Your task to perform on an android device: choose inbox layout in the gmail app Image 0: 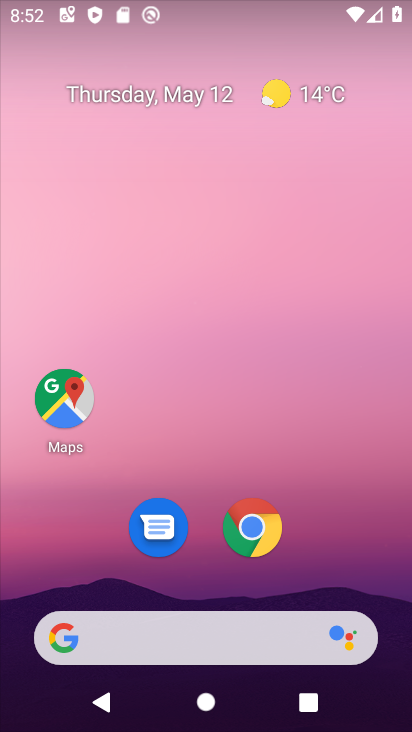
Step 0: drag from (363, 536) to (298, 98)
Your task to perform on an android device: choose inbox layout in the gmail app Image 1: 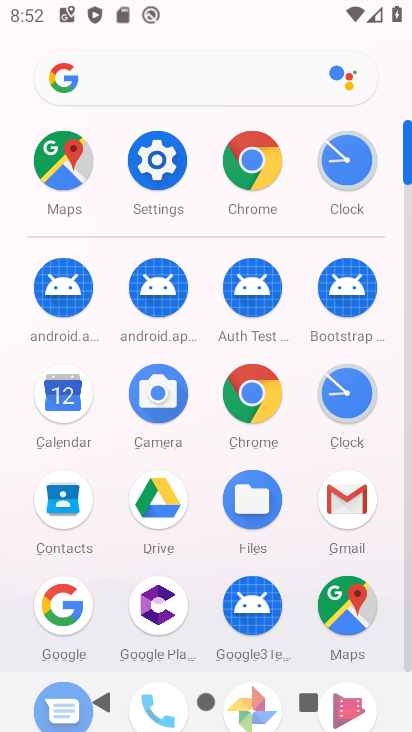
Step 1: click (332, 498)
Your task to perform on an android device: choose inbox layout in the gmail app Image 2: 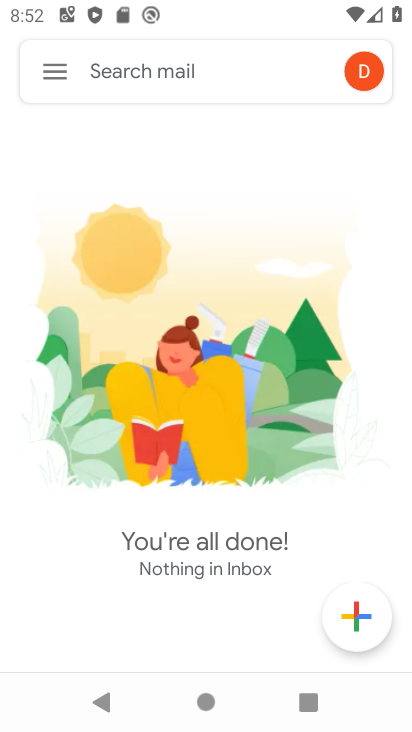
Step 2: click (46, 55)
Your task to perform on an android device: choose inbox layout in the gmail app Image 3: 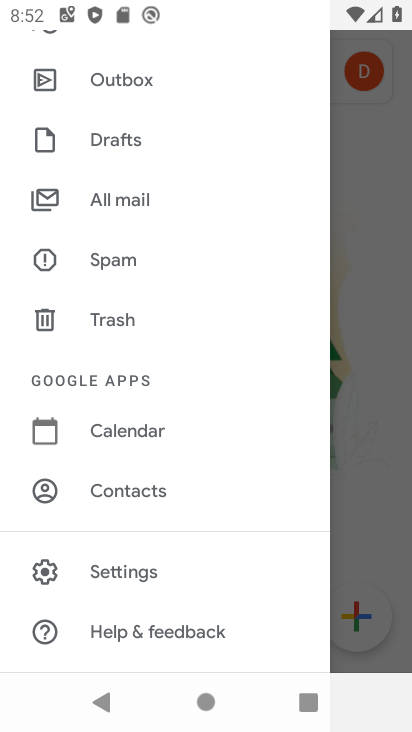
Step 3: drag from (107, 178) to (144, 479)
Your task to perform on an android device: choose inbox layout in the gmail app Image 4: 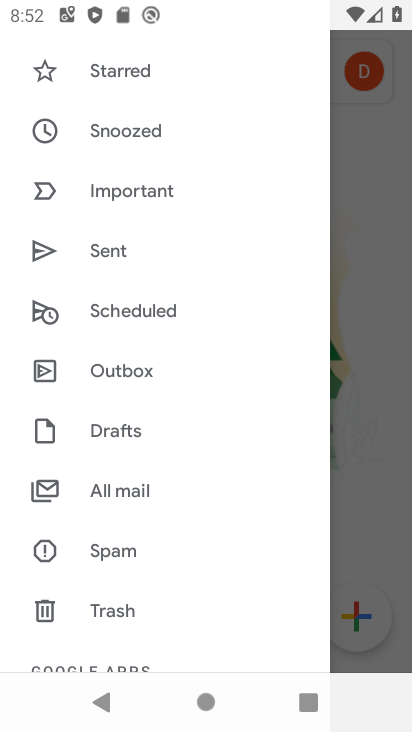
Step 4: drag from (153, 168) to (259, 651)
Your task to perform on an android device: choose inbox layout in the gmail app Image 5: 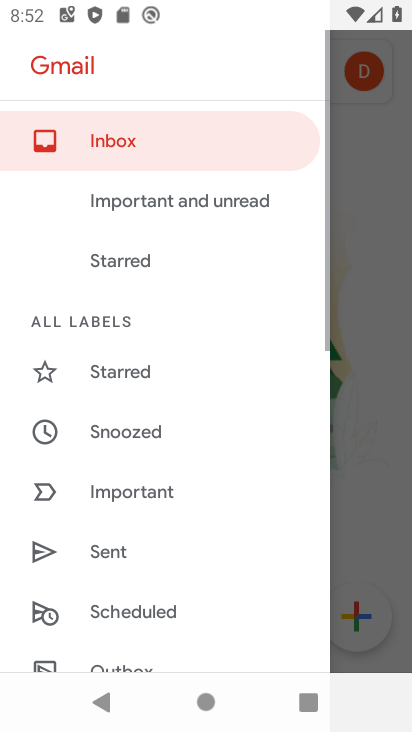
Step 5: click (161, 142)
Your task to perform on an android device: choose inbox layout in the gmail app Image 6: 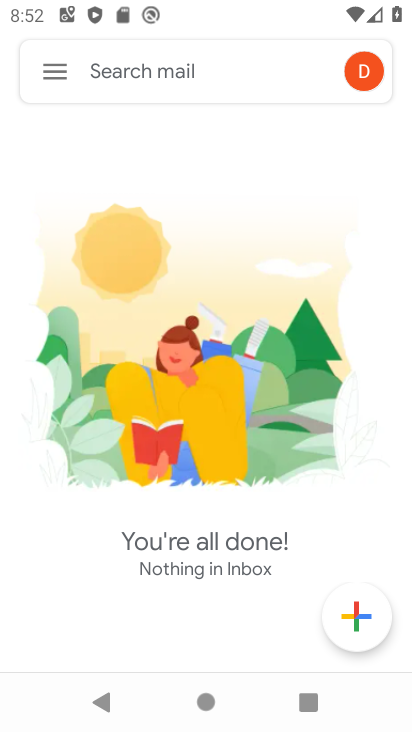
Step 6: task complete